Your task to perform on an android device: Check the weather Image 0: 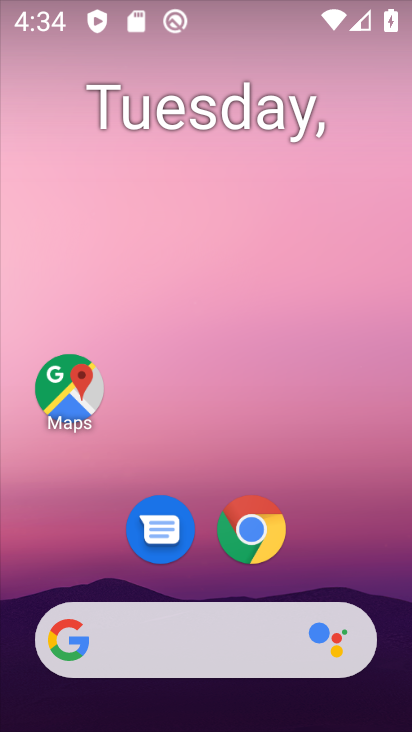
Step 0: click (211, 80)
Your task to perform on an android device: Check the weather Image 1: 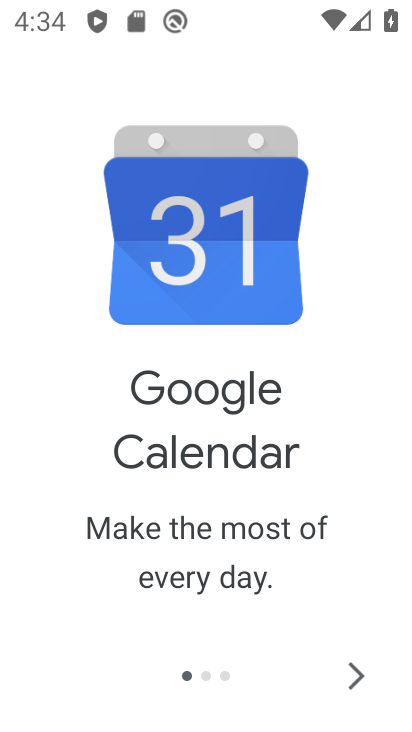
Step 1: click (356, 680)
Your task to perform on an android device: Check the weather Image 2: 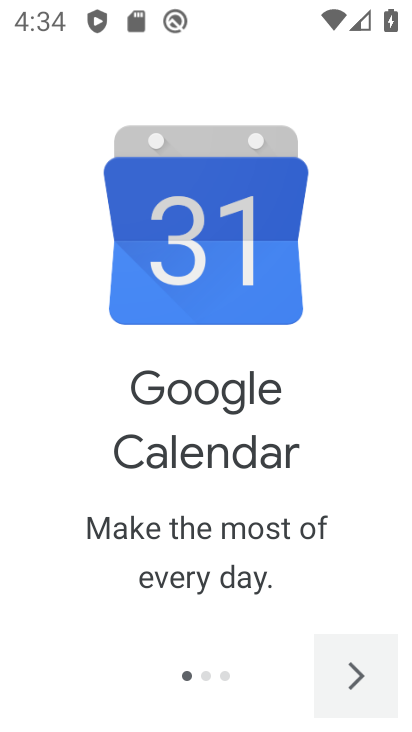
Step 2: click (356, 680)
Your task to perform on an android device: Check the weather Image 3: 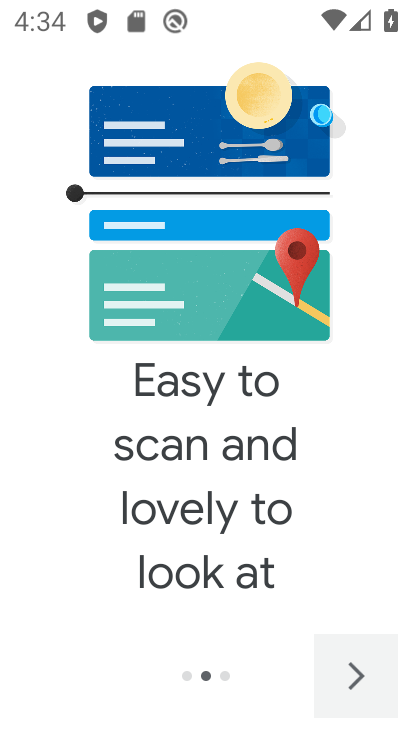
Step 3: click (311, 683)
Your task to perform on an android device: Check the weather Image 4: 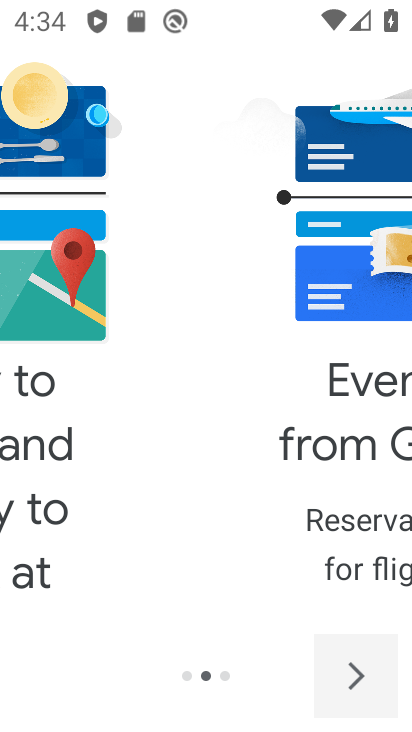
Step 4: click (310, 686)
Your task to perform on an android device: Check the weather Image 5: 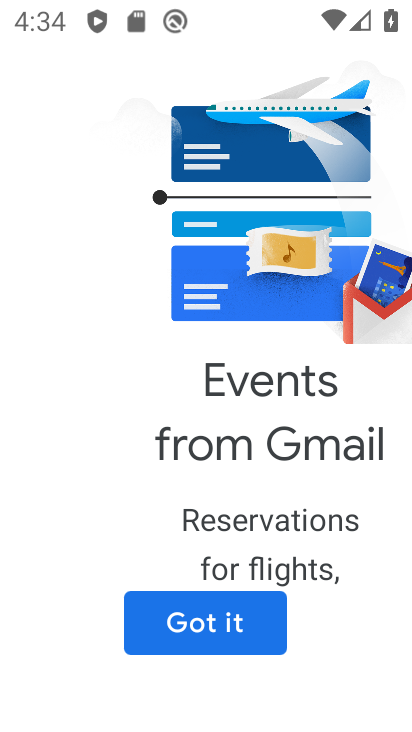
Step 5: click (225, 632)
Your task to perform on an android device: Check the weather Image 6: 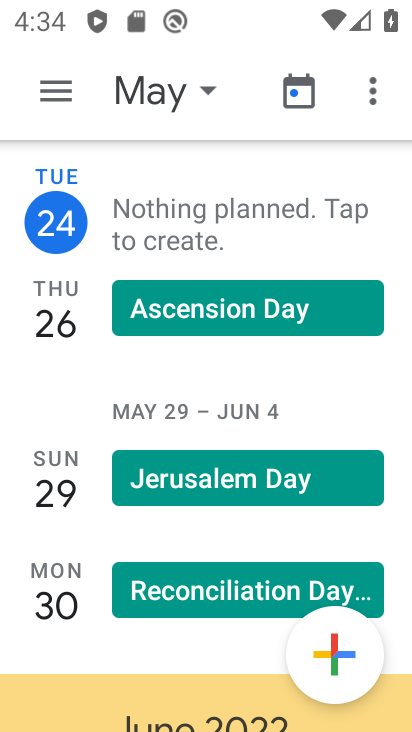
Step 6: task complete